Your task to perform on an android device: Open the phone app and click the voicemail tab. Image 0: 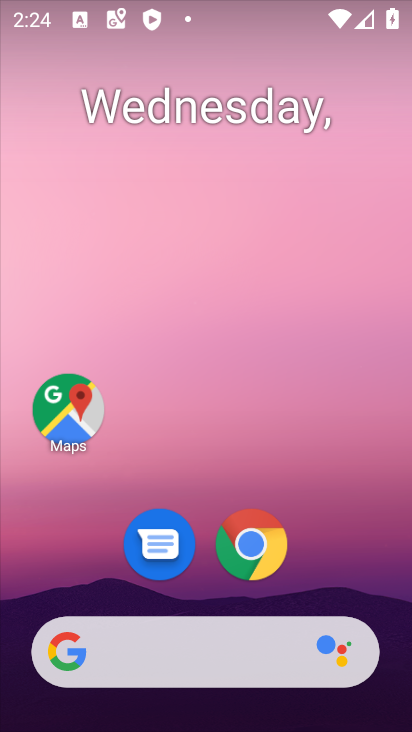
Step 0: drag from (389, 631) to (298, 77)
Your task to perform on an android device: Open the phone app and click the voicemail tab. Image 1: 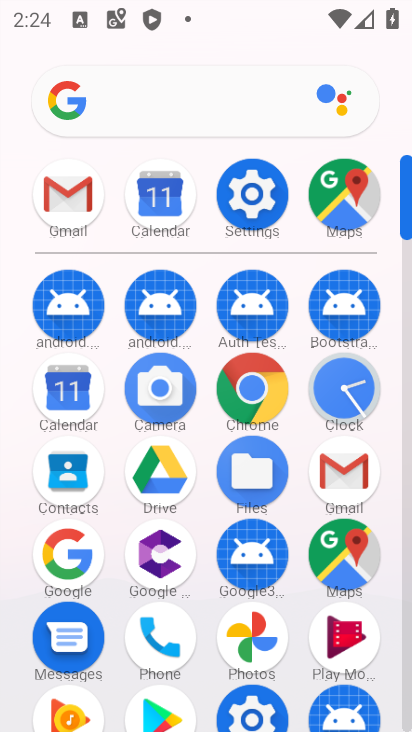
Step 1: click (408, 716)
Your task to perform on an android device: Open the phone app and click the voicemail tab. Image 2: 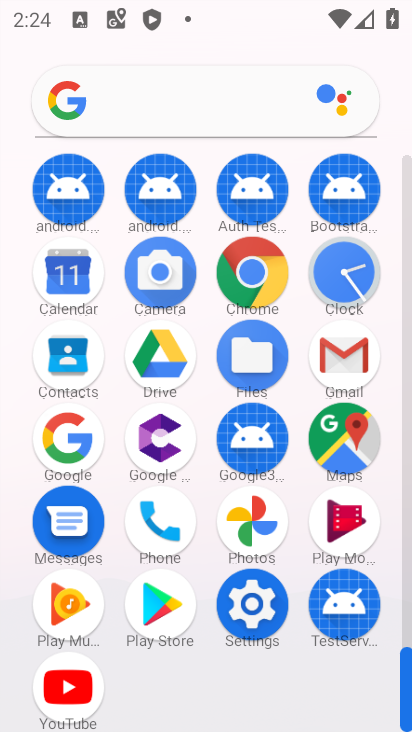
Step 2: click (155, 520)
Your task to perform on an android device: Open the phone app and click the voicemail tab. Image 3: 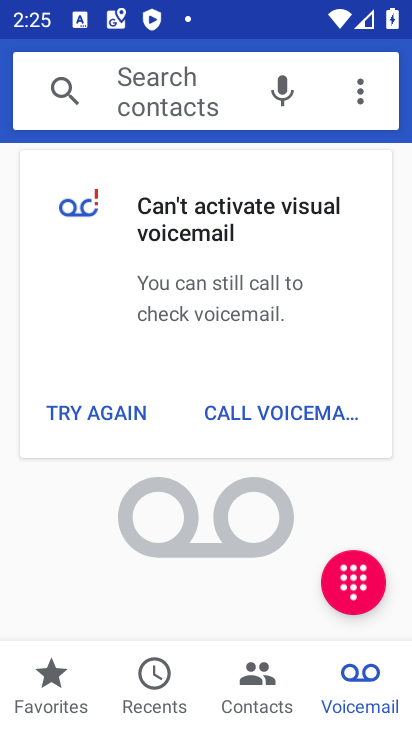
Step 3: task complete